Your task to perform on an android device: View the shopping cart on costco.com. Search for razer naga on costco.com, select the first entry, and add it to the cart. Image 0: 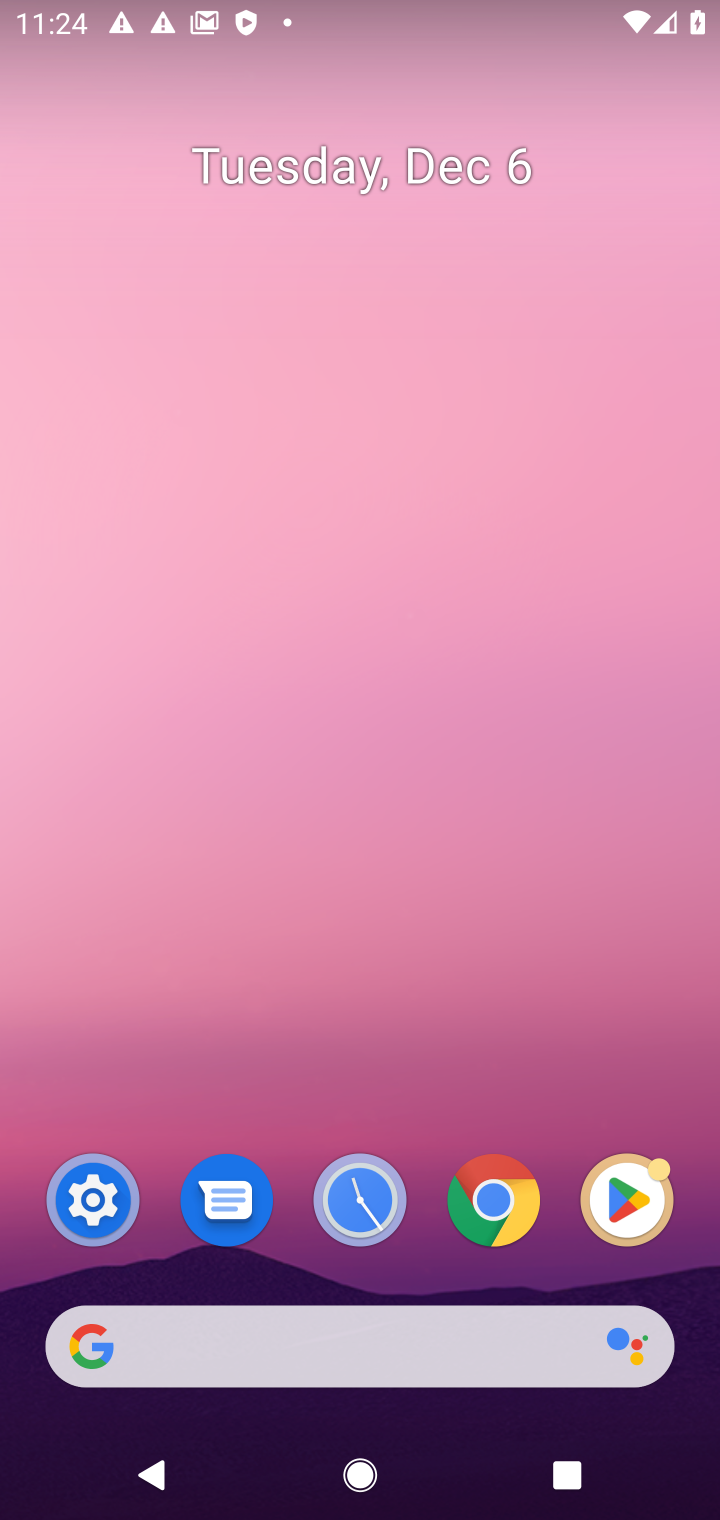
Step 0: click (400, 1313)
Your task to perform on an android device: View the shopping cart on costco.com. Search for razer naga on costco.com, select the first entry, and add it to the cart. Image 1: 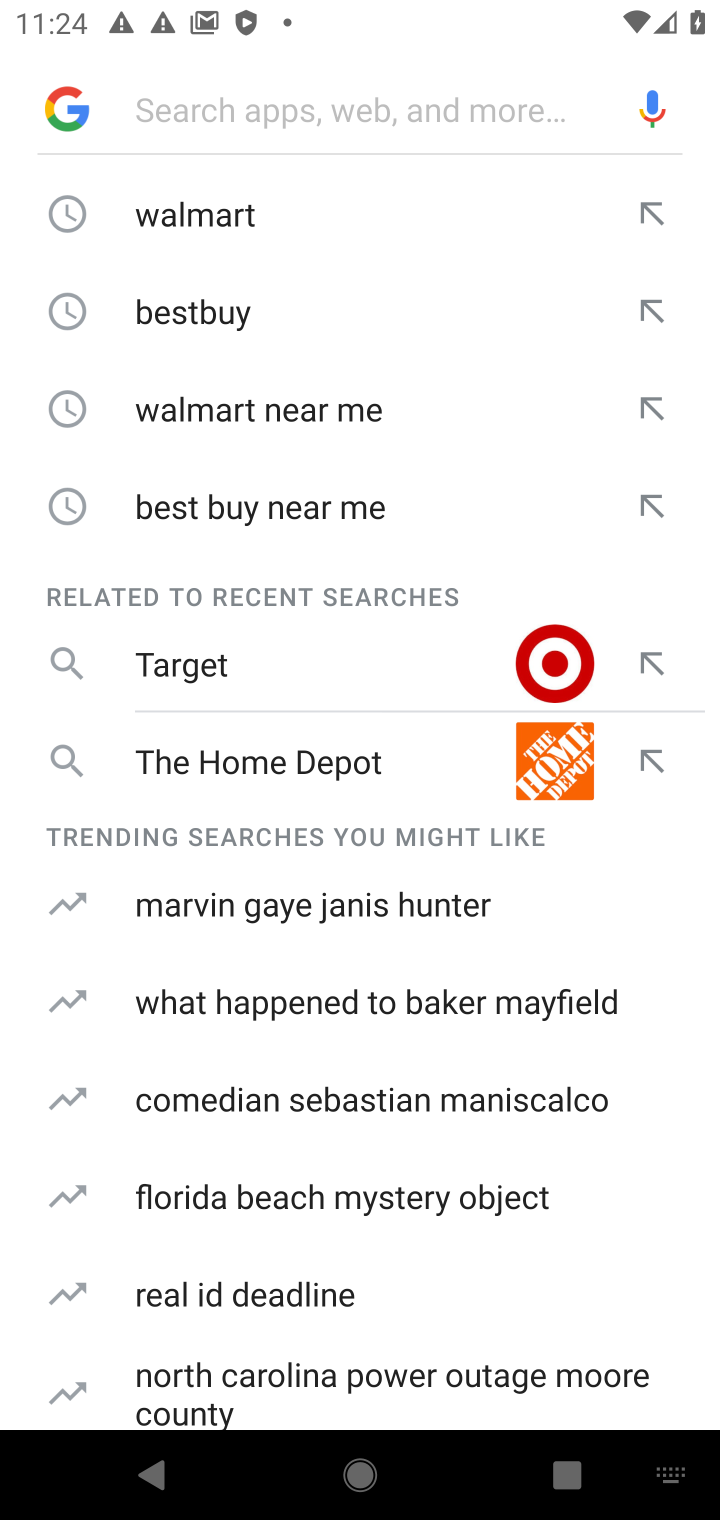
Step 1: type "costco"
Your task to perform on an android device: View the shopping cart on costco.com. Search for razer naga on costco.com, select the first entry, and add it to the cart. Image 2: 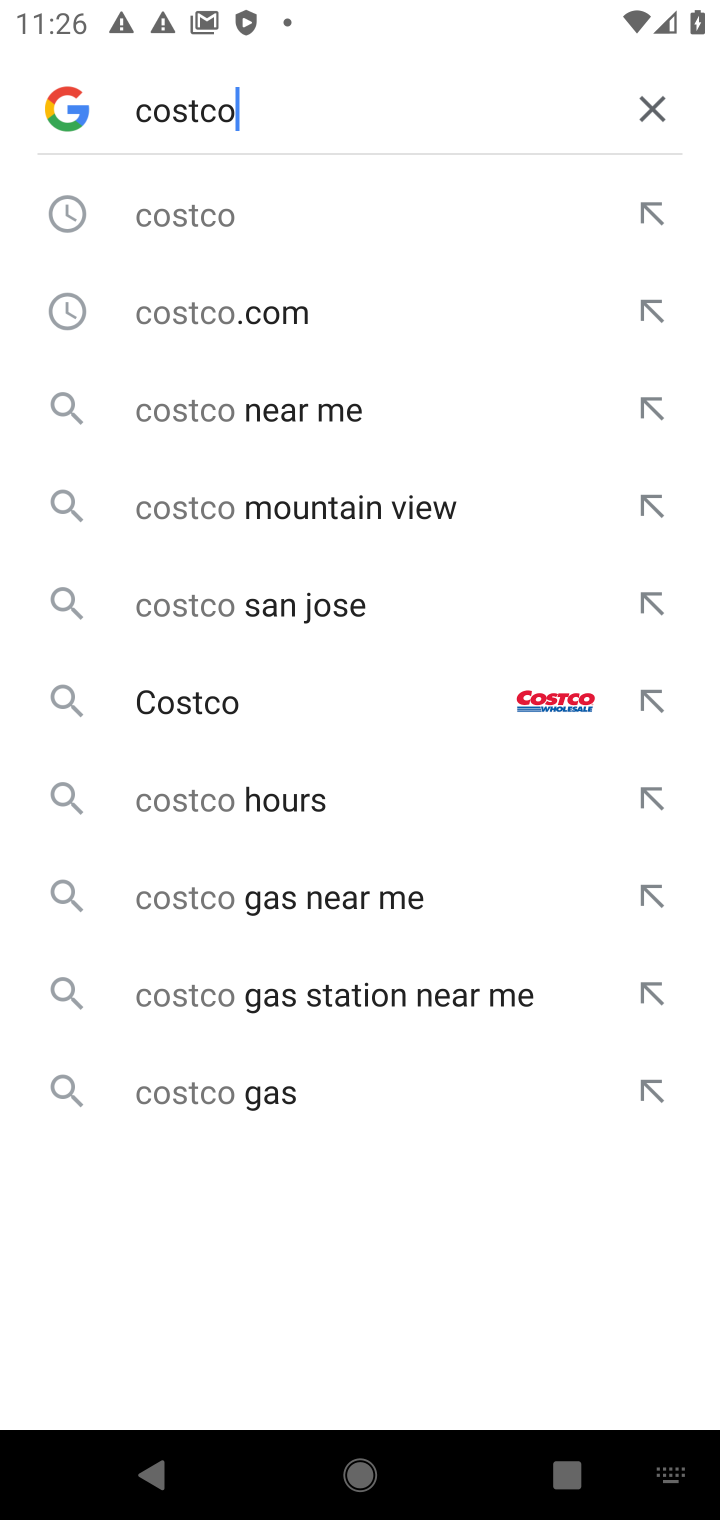
Step 2: click (153, 251)
Your task to perform on an android device: View the shopping cart on costco.com. Search for razer naga on costco.com, select the first entry, and add it to the cart. Image 3: 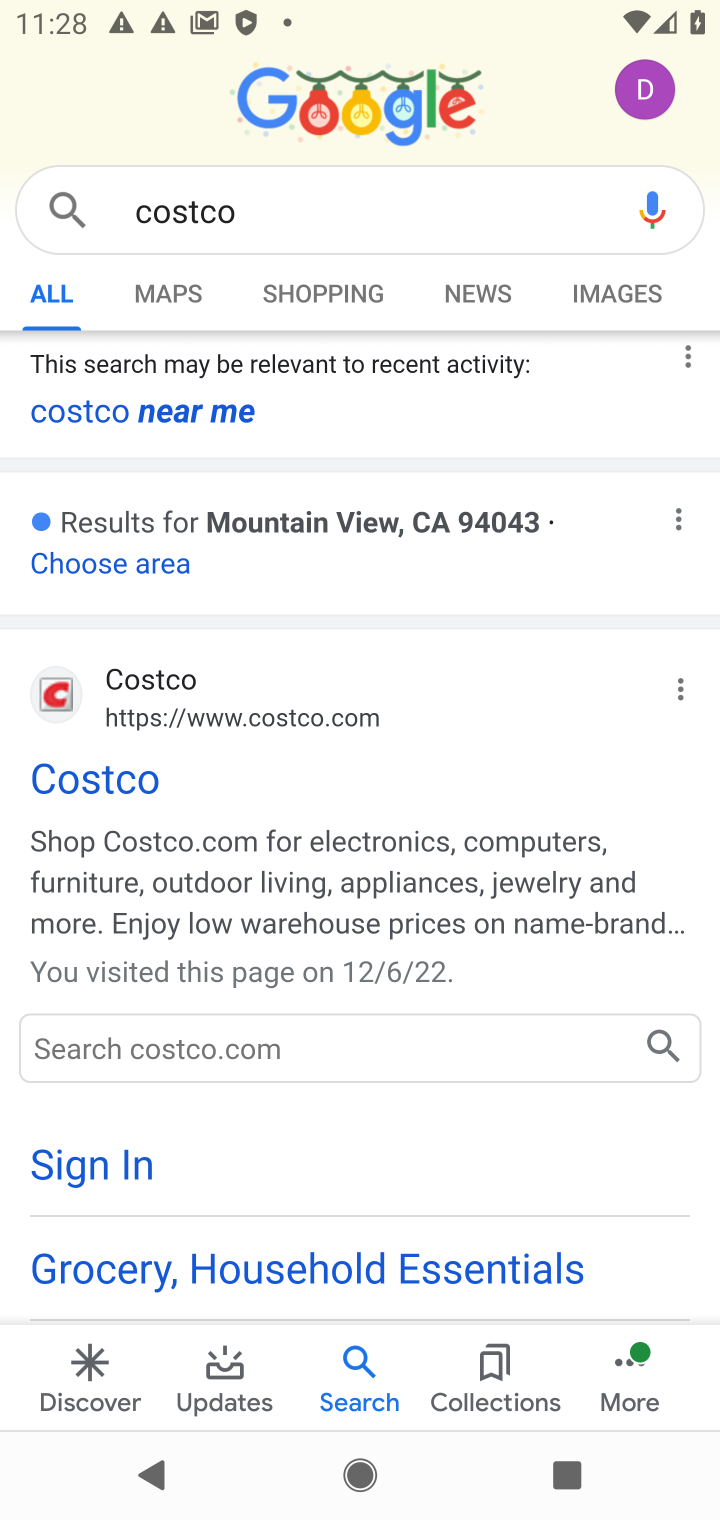
Step 3: click (89, 804)
Your task to perform on an android device: View the shopping cart on costco.com. Search for razer naga on costco.com, select the first entry, and add it to the cart. Image 4: 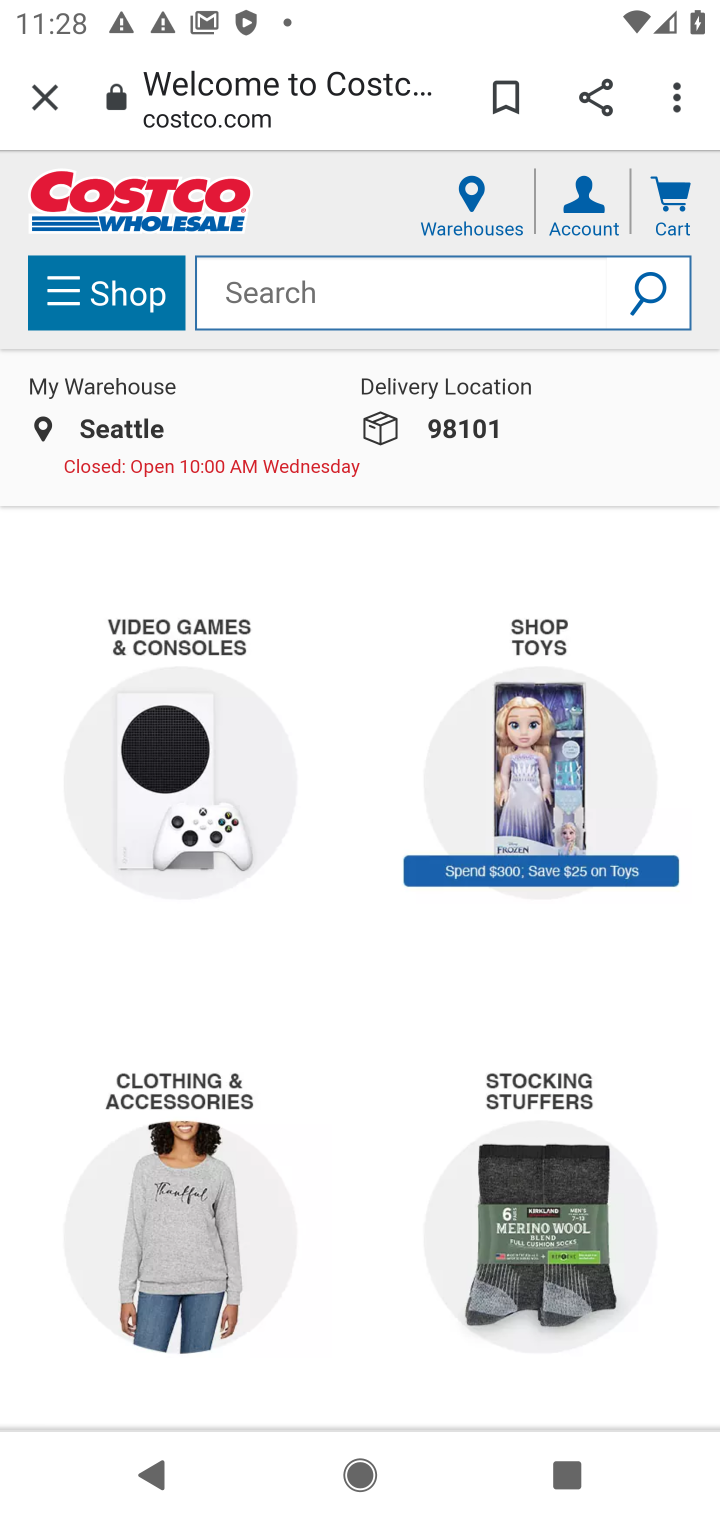
Step 4: task complete